Your task to perform on an android device: turn vacation reply on in the gmail app Image 0: 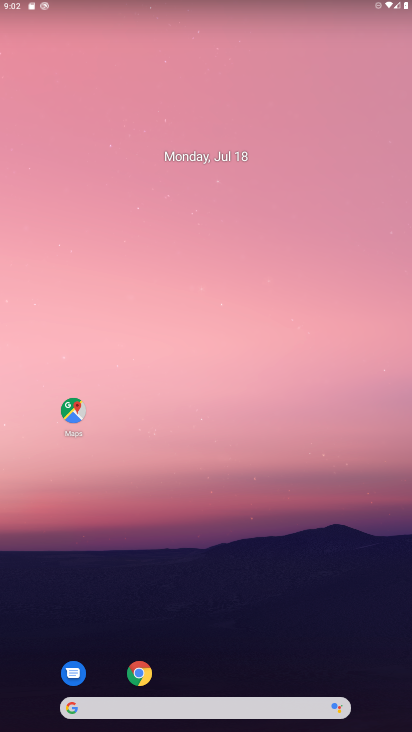
Step 0: press home button
Your task to perform on an android device: turn vacation reply on in the gmail app Image 1: 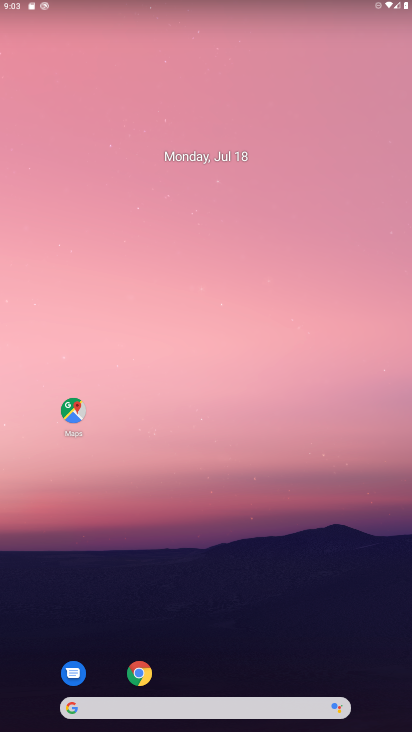
Step 1: drag from (243, 657) to (196, 32)
Your task to perform on an android device: turn vacation reply on in the gmail app Image 2: 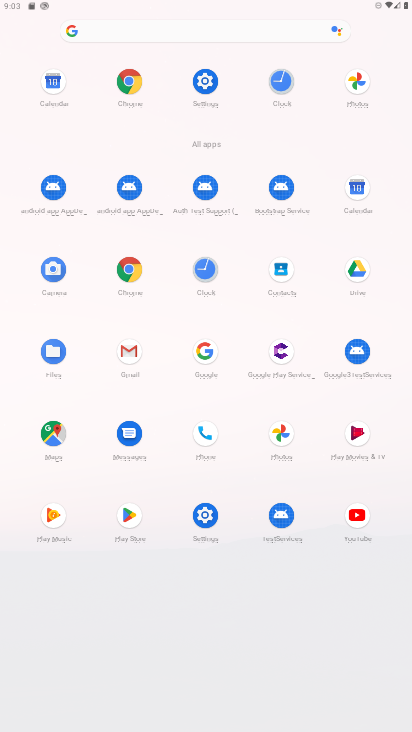
Step 2: click (125, 345)
Your task to perform on an android device: turn vacation reply on in the gmail app Image 3: 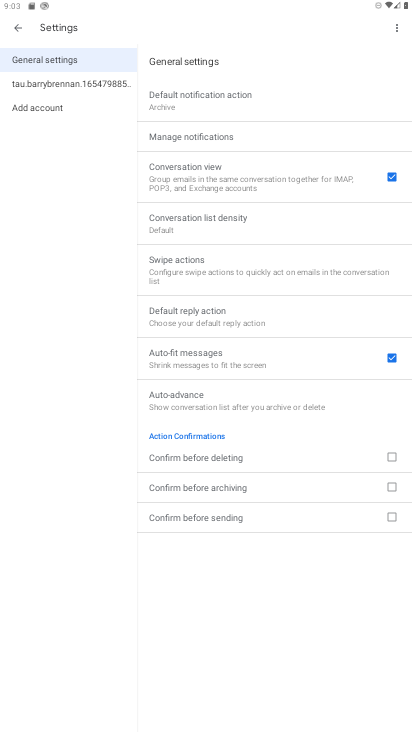
Step 3: click (78, 82)
Your task to perform on an android device: turn vacation reply on in the gmail app Image 4: 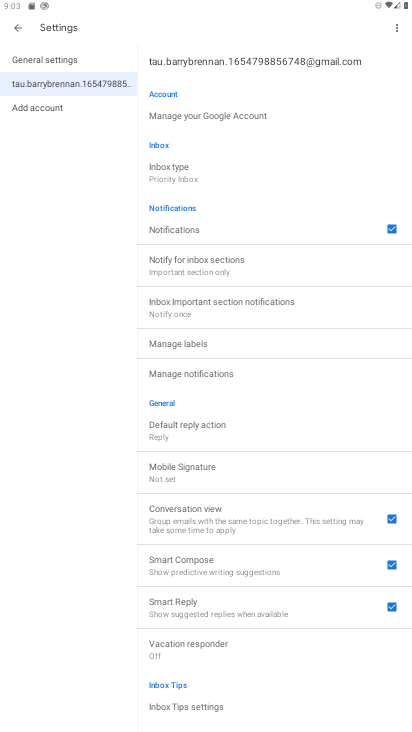
Step 4: click (197, 646)
Your task to perform on an android device: turn vacation reply on in the gmail app Image 5: 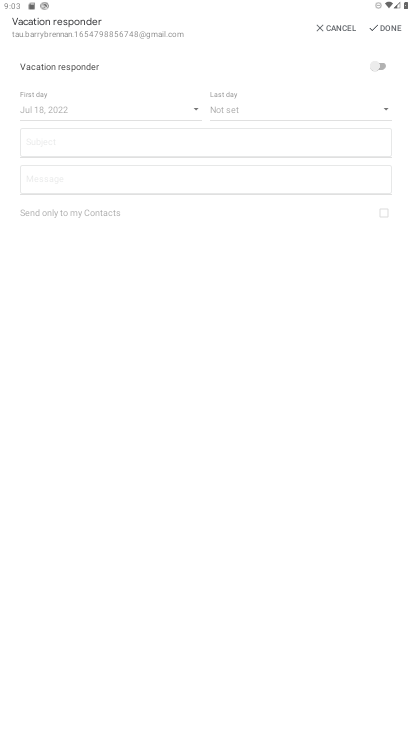
Step 5: click (382, 66)
Your task to perform on an android device: turn vacation reply on in the gmail app Image 6: 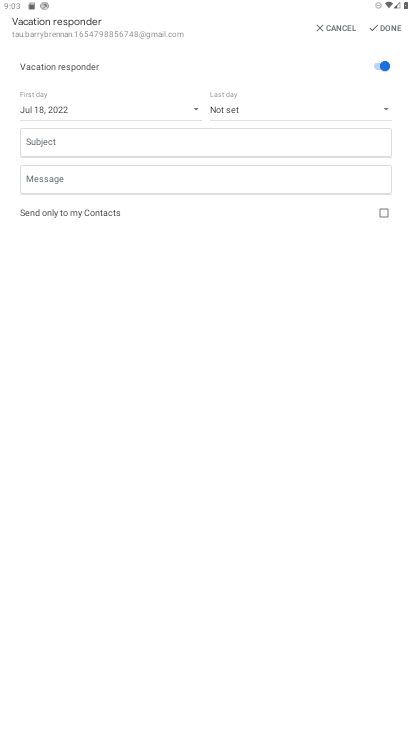
Step 6: task complete